Your task to perform on an android device: toggle pop-ups in chrome Image 0: 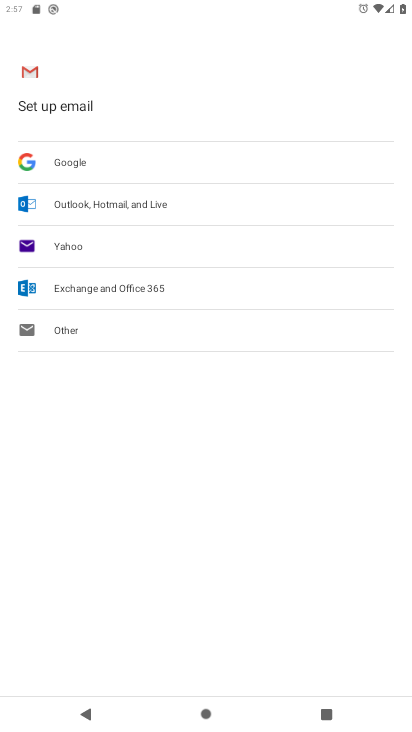
Step 0: press home button
Your task to perform on an android device: toggle pop-ups in chrome Image 1: 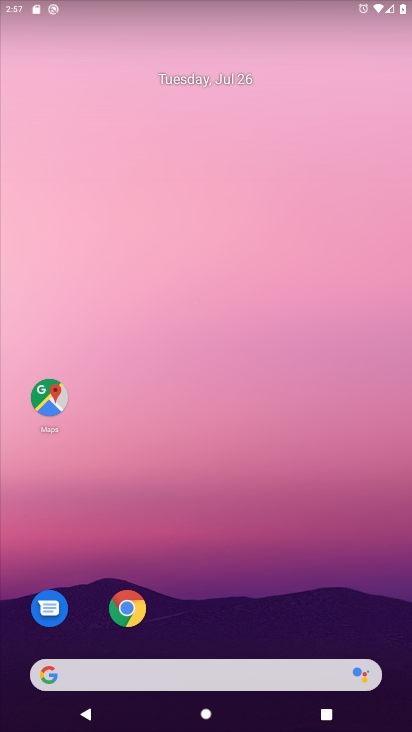
Step 1: click (121, 607)
Your task to perform on an android device: toggle pop-ups in chrome Image 2: 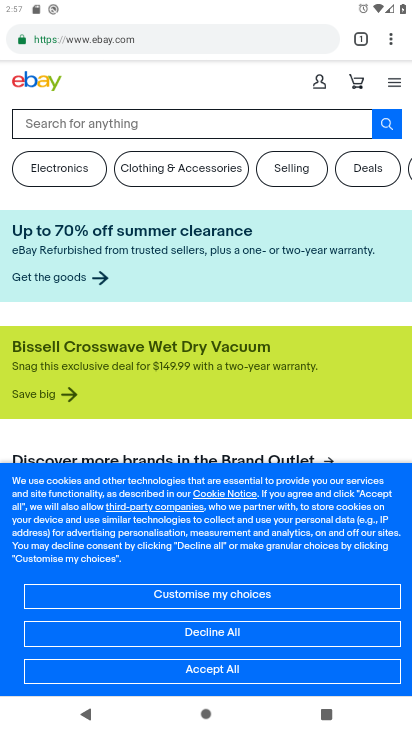
Step 2: click (393, 42)
Your task to perform on an android device: toggle pop-ups in chrome Image 3: 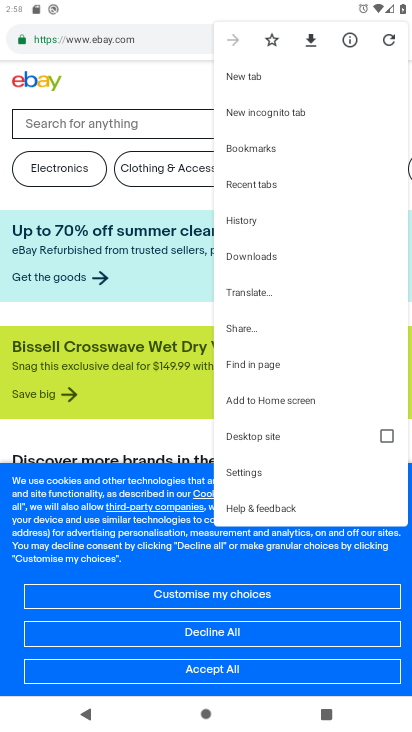
Step 3: click (283, 477)
Your task to perform on an android device: toggle pop-ups in chrome Image 4: 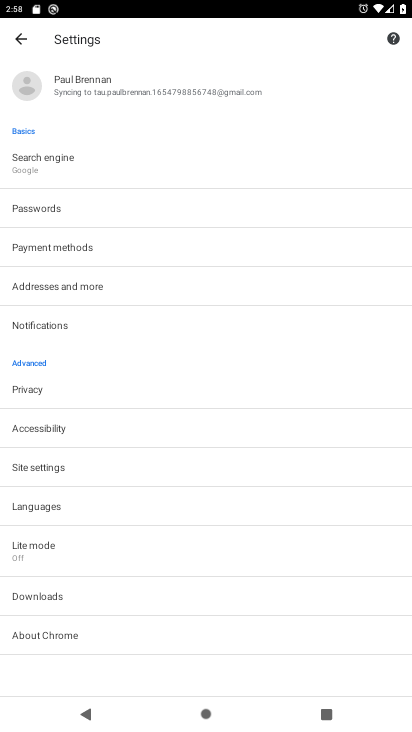
Step 4: click (63, 472)
Your task to perform on an android device: toggle pop-ups in chrome Image 5: 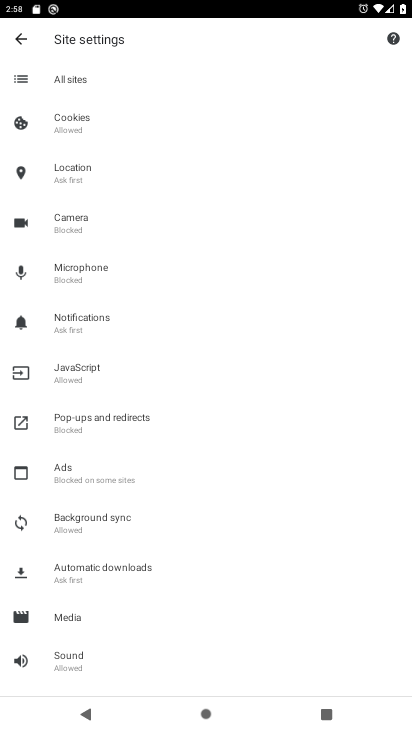
Step 5: click (96, 426)
Your task to perform on an android device: toggle pop-ups in chrome Image 6: 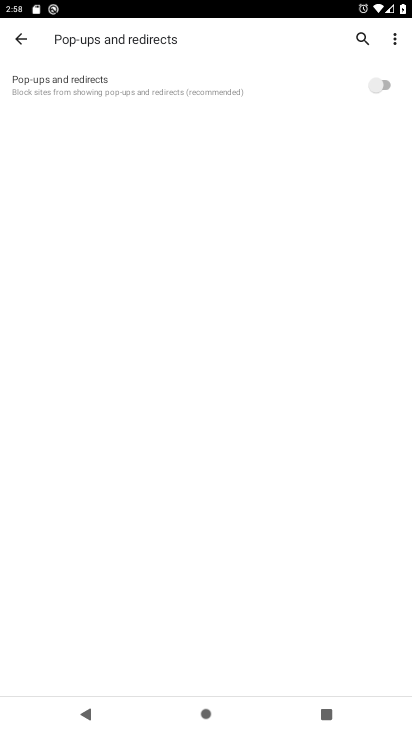
Step 6: click (378, 89)
Your task to perform on an android device: toggle pop-ups in chrome Image 7: 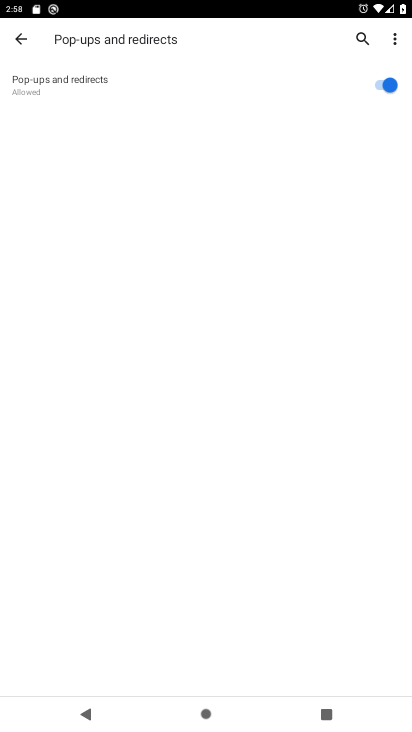
Step 7: task complete